Your task to perform on an android device: Open settings on Google Maps Image 0: 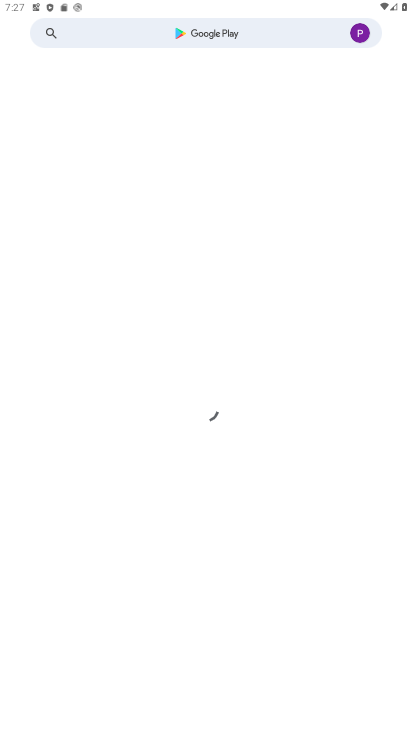
Step 0: press home button
Your task to perform on an android device: Open settings on Google Maps Image 1: 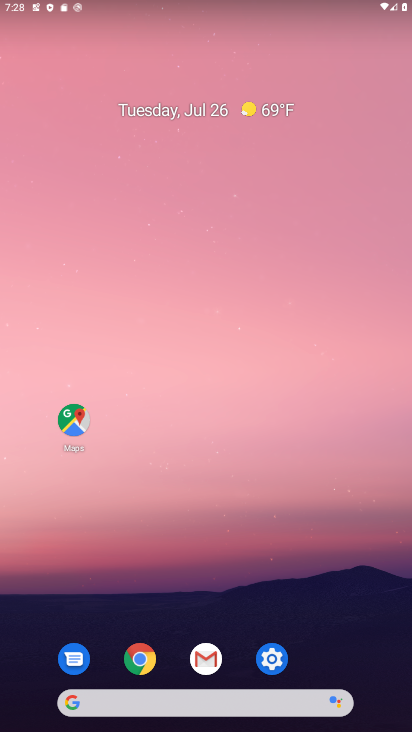
Step 1: click (77, 417)
Your task to perform on an android device: Open settings on Google Maps Image 2: 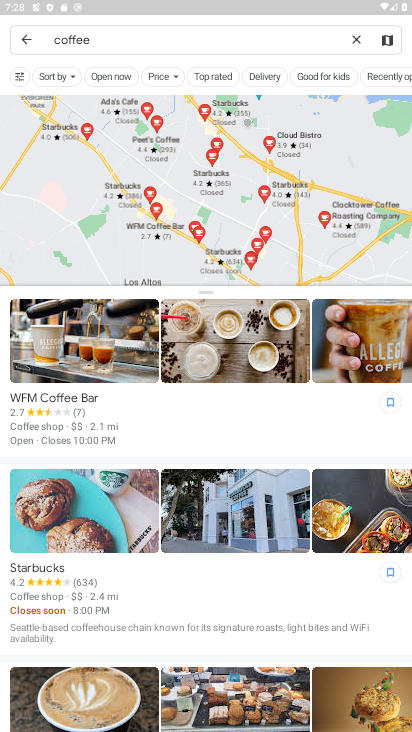
Step 2: click (25, 40)
Your task to perform on an android device: Open settings on Google Maps Image 3: 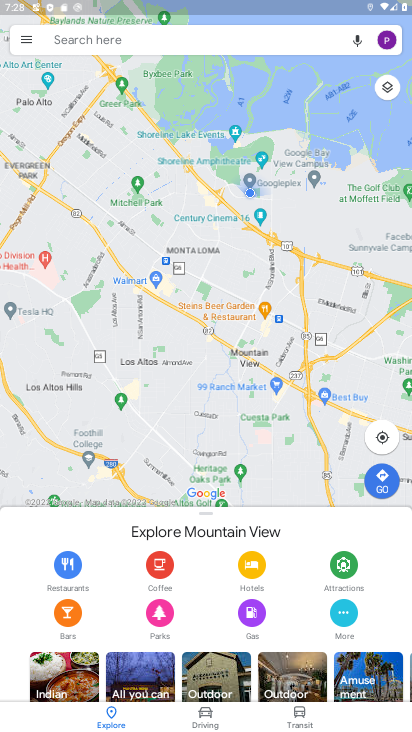
Step 3: click (28, 43)
Your task to perform on an android device: Open settings on Google Maps Image 4: 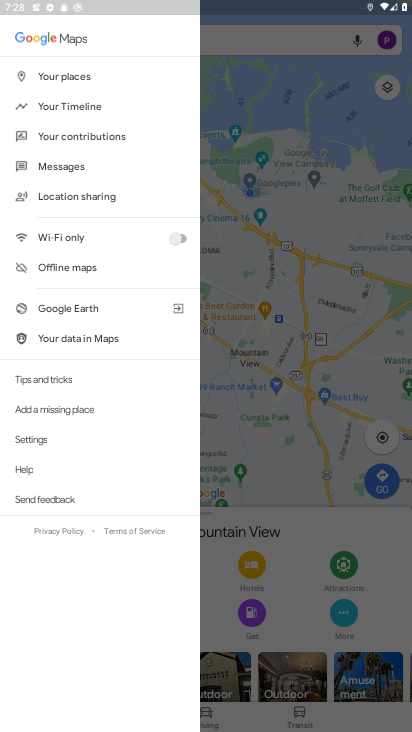
Step 4: click (52, 446)
Your task to perform on an android device: Open settings on Google Maps Image 5: 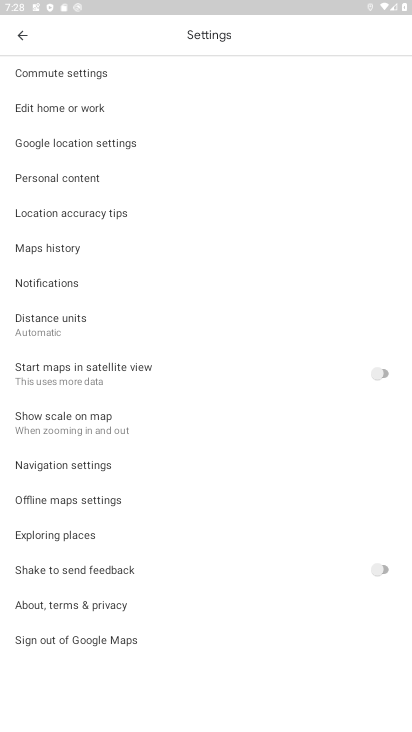
Step 5: task complete